Your task to perform on an android device: check the backup settings in the google photos Image 0: 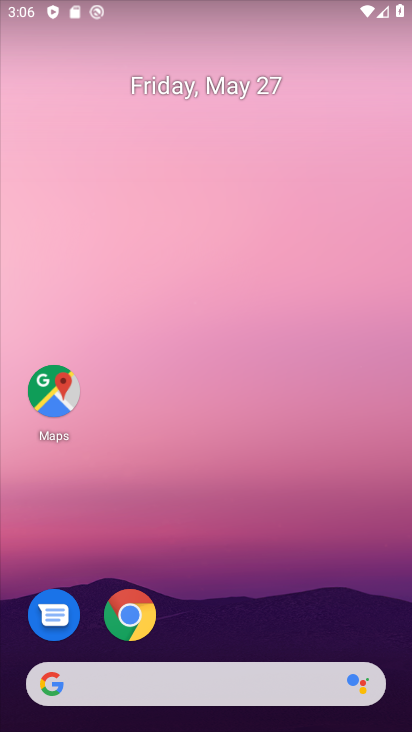
Step 0: drag from (136, 714) to (187, 0)
Your task to perform on an android device: check the backup settings in the google photos Image 1: 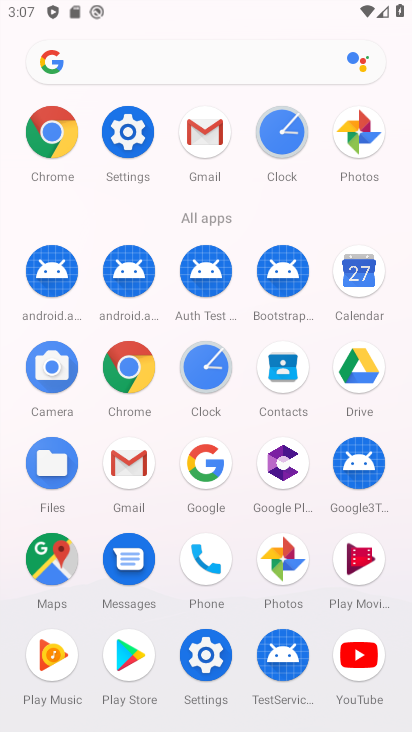
Step 1: click (290, 566)
Your task to perform on an android device: check the backup settings in the google photos Image 2: 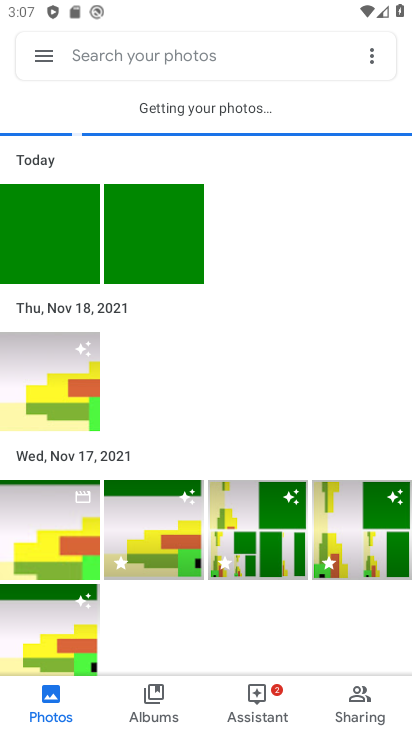
Step 2: click (45, 63)
Your task to perform on an android device: check the backup settings in the google photos Image 3: 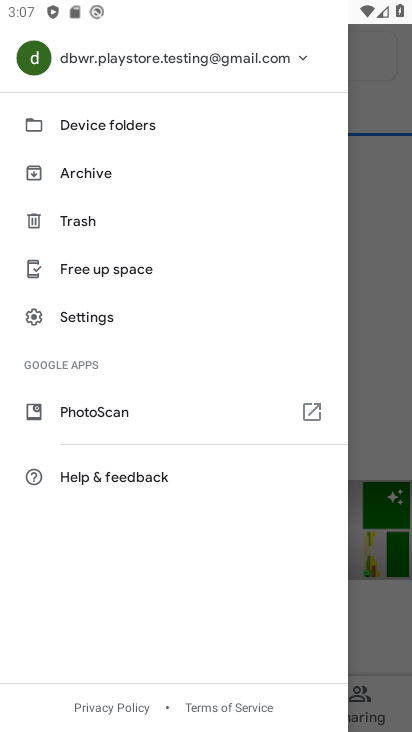
Step 3: click (88, 321)
Your task to perform on an android device: check the backup settings in the google photos Image 4: 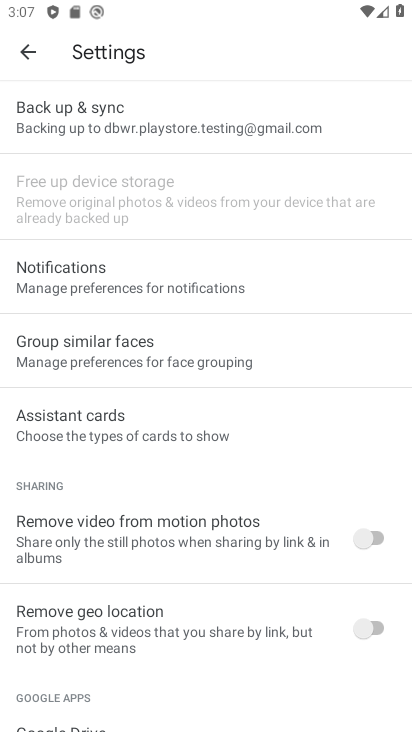
Step 4: click (93, 128)
Your task to perform on an android device: check the backup settings in the google photos Image 5: 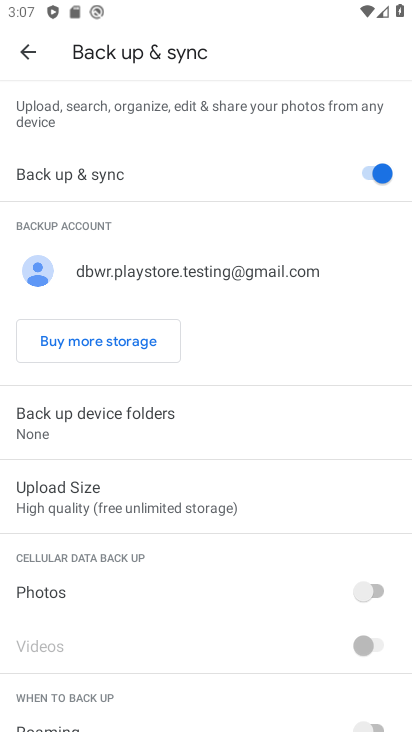
Step 5: task complete